Your task to perform on an android device: turn off data saver in the chrome app Image 0: 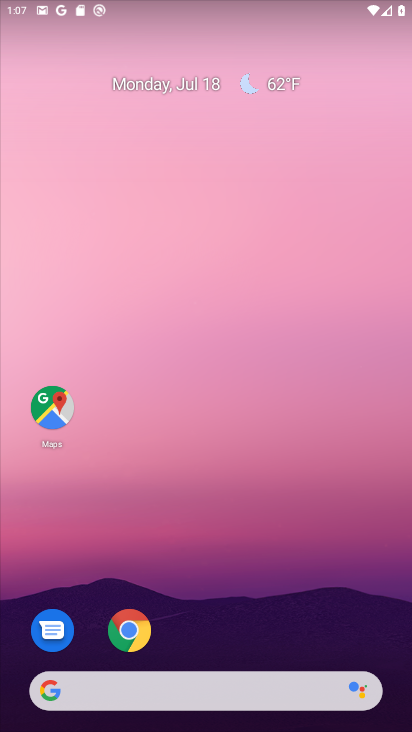
Step 0: click (122, 636)
Your task to perform on an android device: turn off data saver in the chrome app Image 1: 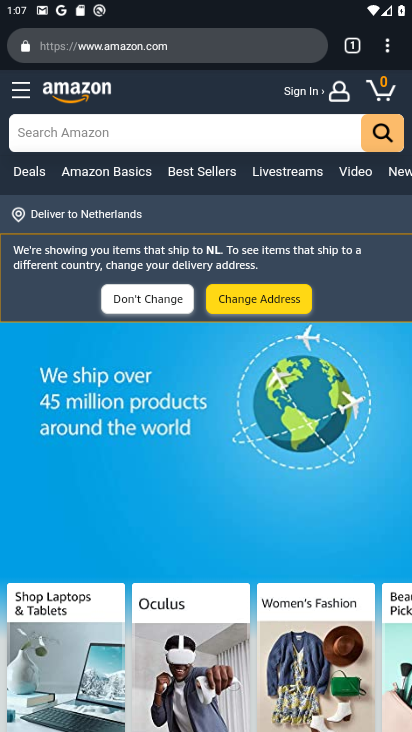
Step 1: click (388, 47)
Your task to perform on an android device: turn off data saver in the chrome app Image 2: 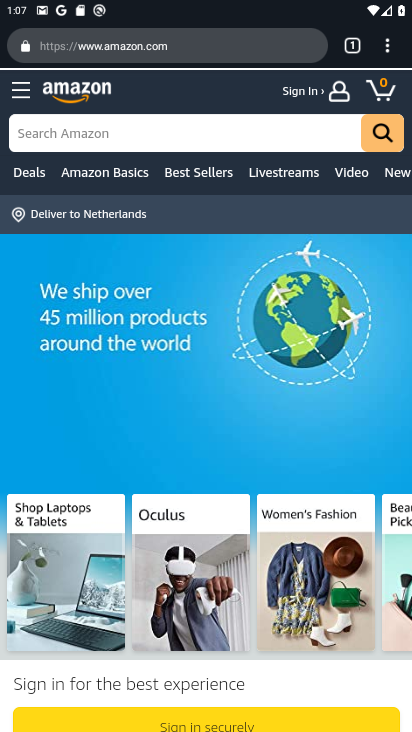
Step 2: click (388, 47)
Your task to perform on an android device: turn off data saver in the chrome app Image 3: 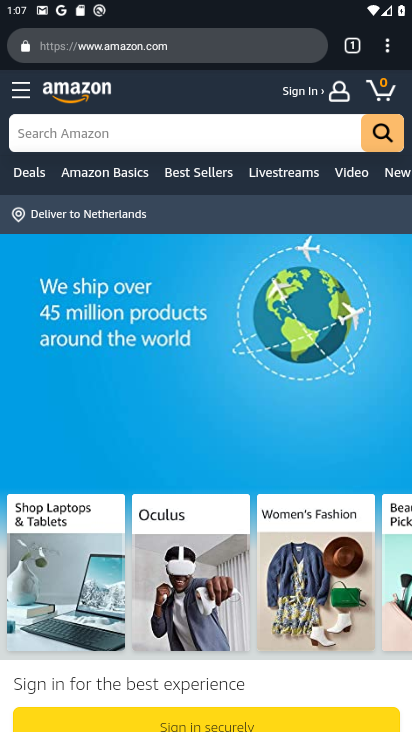
Step 3: click (383, 50)
Your task to perform on an android device: turn off data saver in the chrome app Image 4: 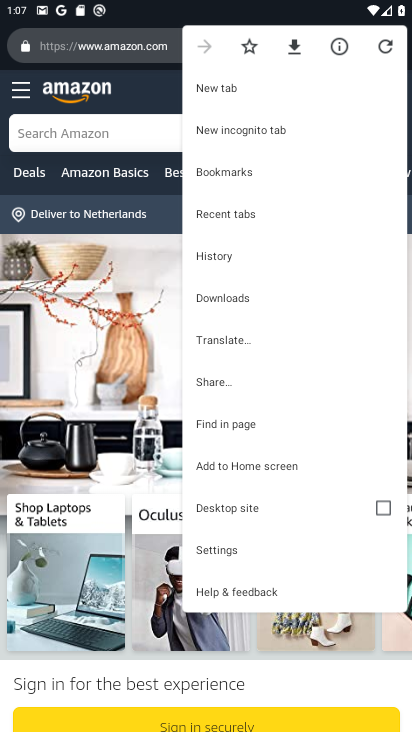
Step 4: click (221, 544)
Your task to perform on an android device: turn off data saver in the chrome app Image 5: 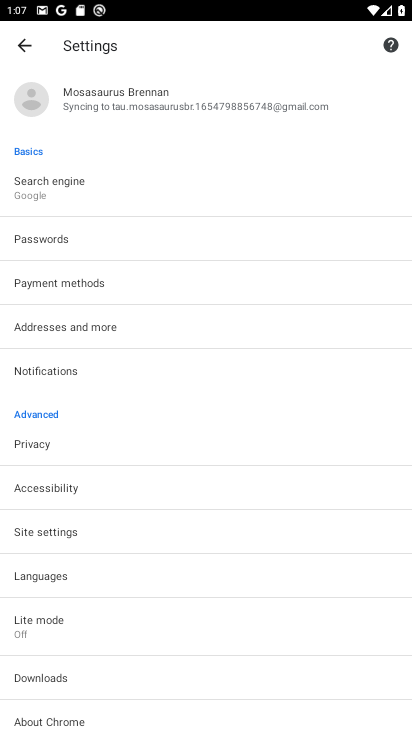
Step 5: click (51, 624)
Your task to perform on an android device: turn off data saver in the chrome app Image 6: 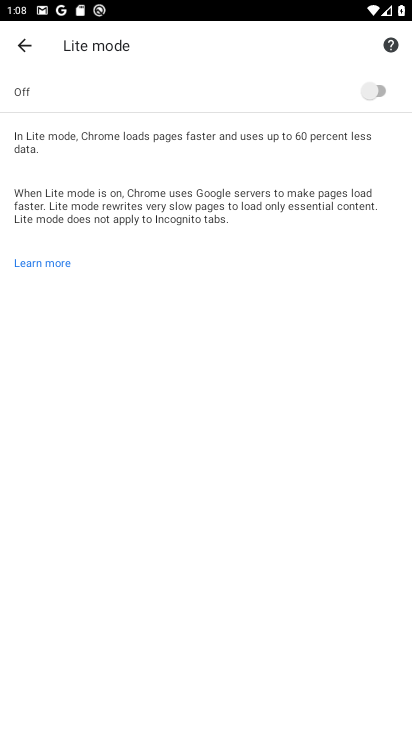
Step 6: task complete